Your task to perform on an android device: What's on my calendar today? Image 0: 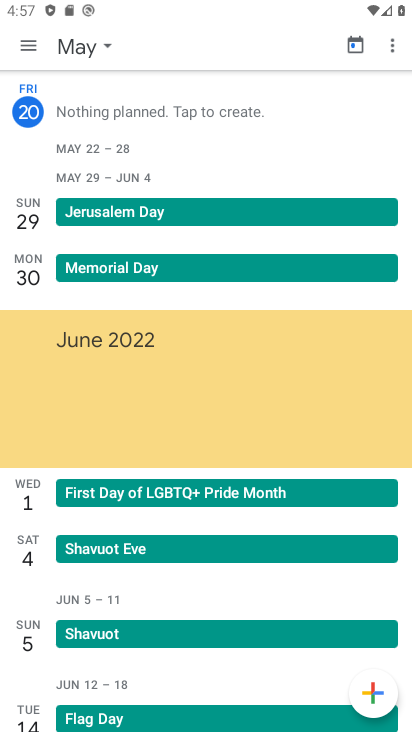
Step 0: task complete